Your task to perform on an android device: open app "Nova Launcher" (install if not already installed) and go to login screen Image 0: 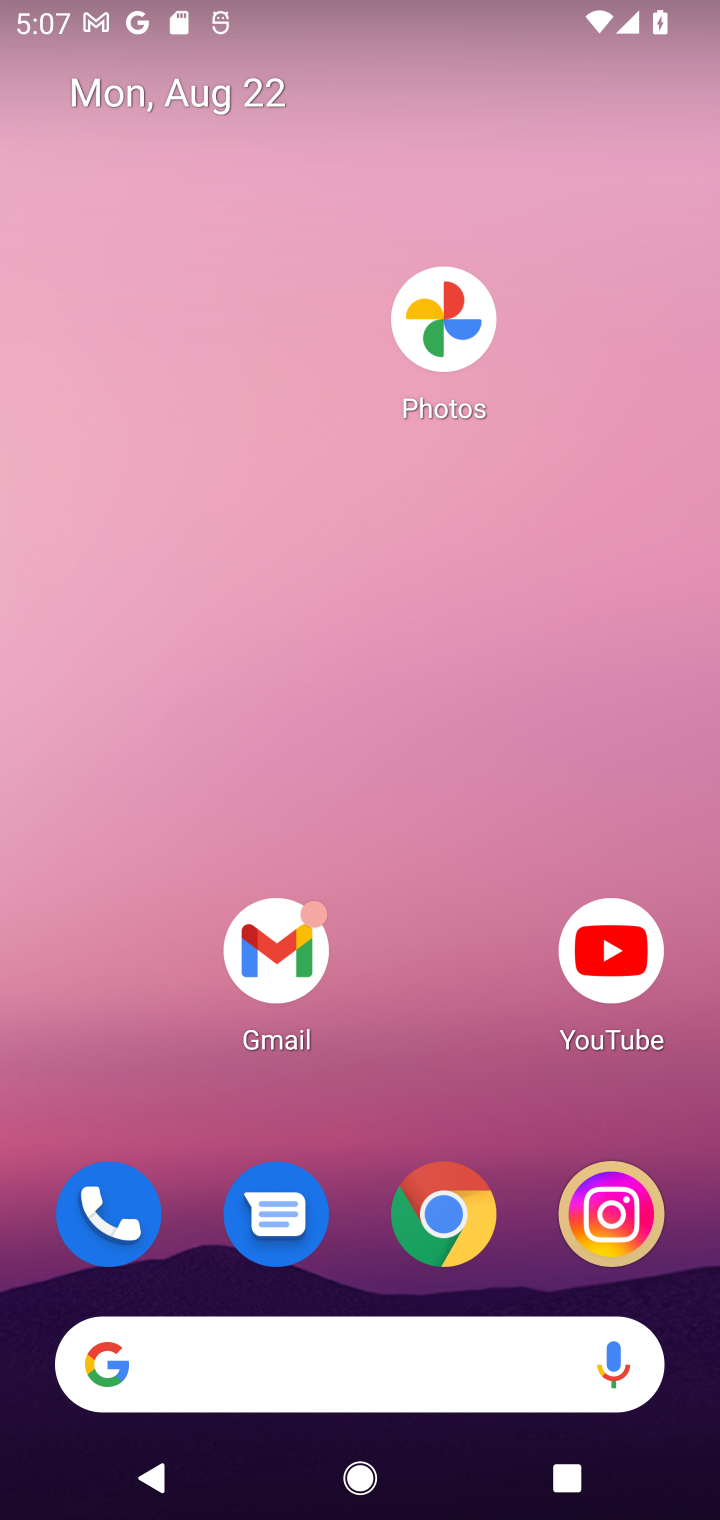
Step 0: drag from (527, 1244) to (515, 85)
Your task to perform on an android device: open app "Nova Launcher" (install if not already installed) and go to login screen Image 1: 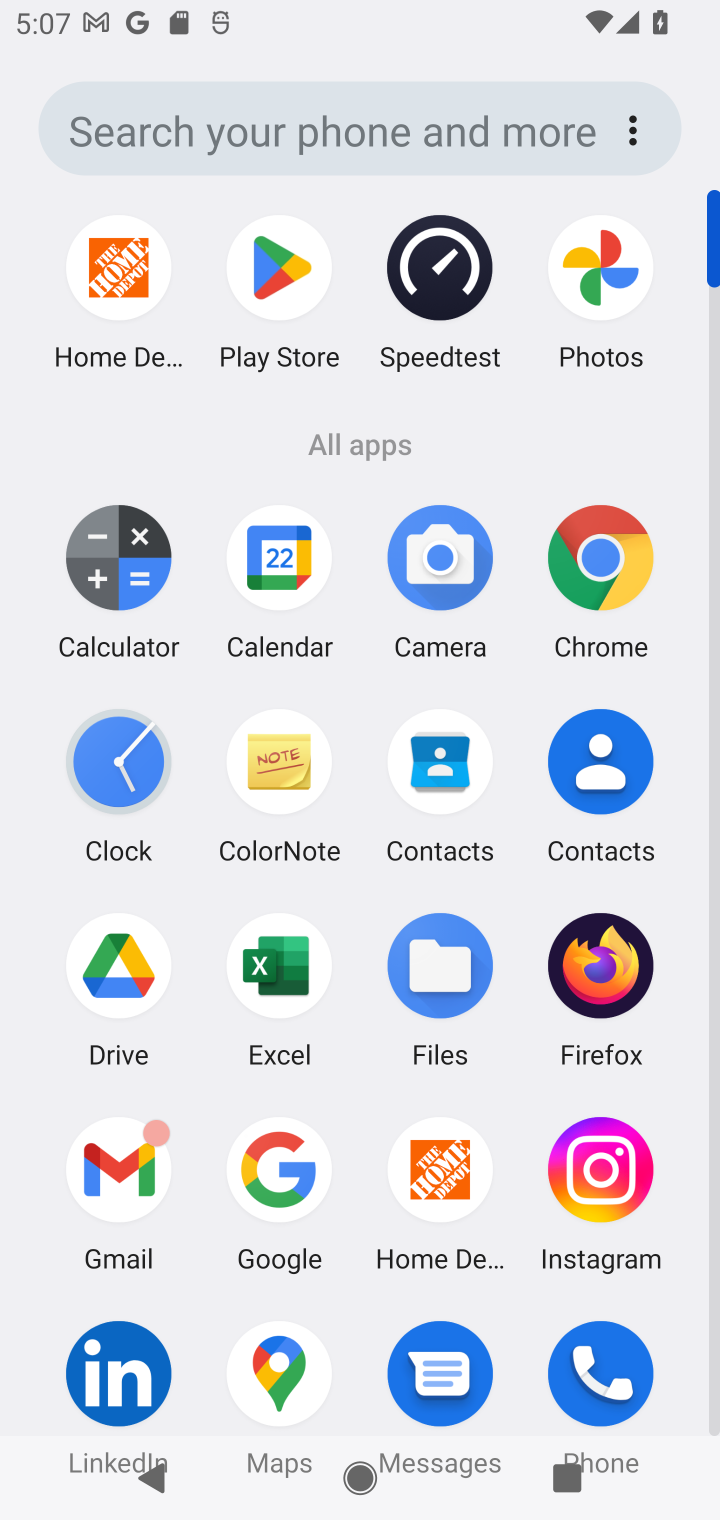
Step 1: drag from (359, 1318) to (340, 456)
Your task to perform on an android device: open app "Nova Launcher" (install if not already installed) and go to login screen Image 2: 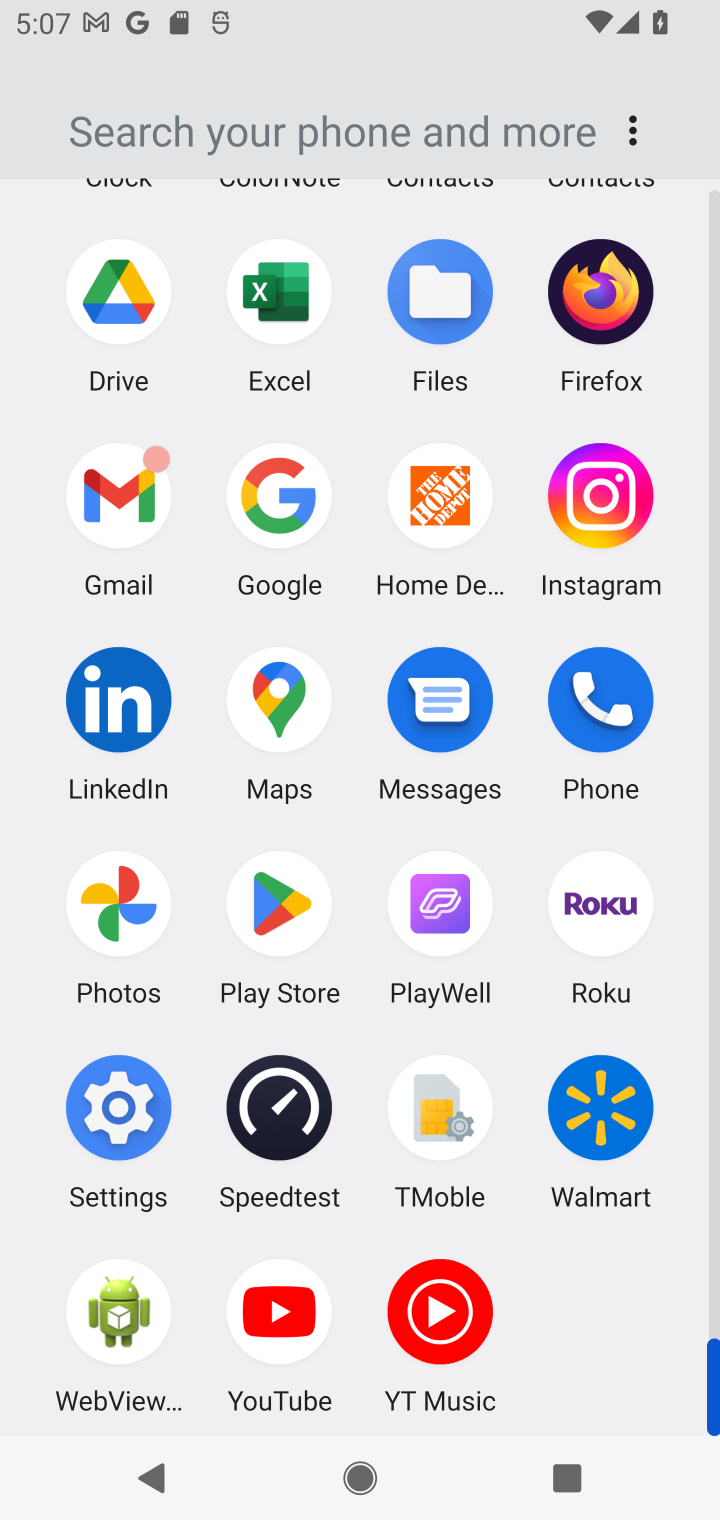
Step 2: click (276, 904)
Your task to perform on an android device: open app "Nova Launcher" (install if not already installed) and go to login screen Image 3: 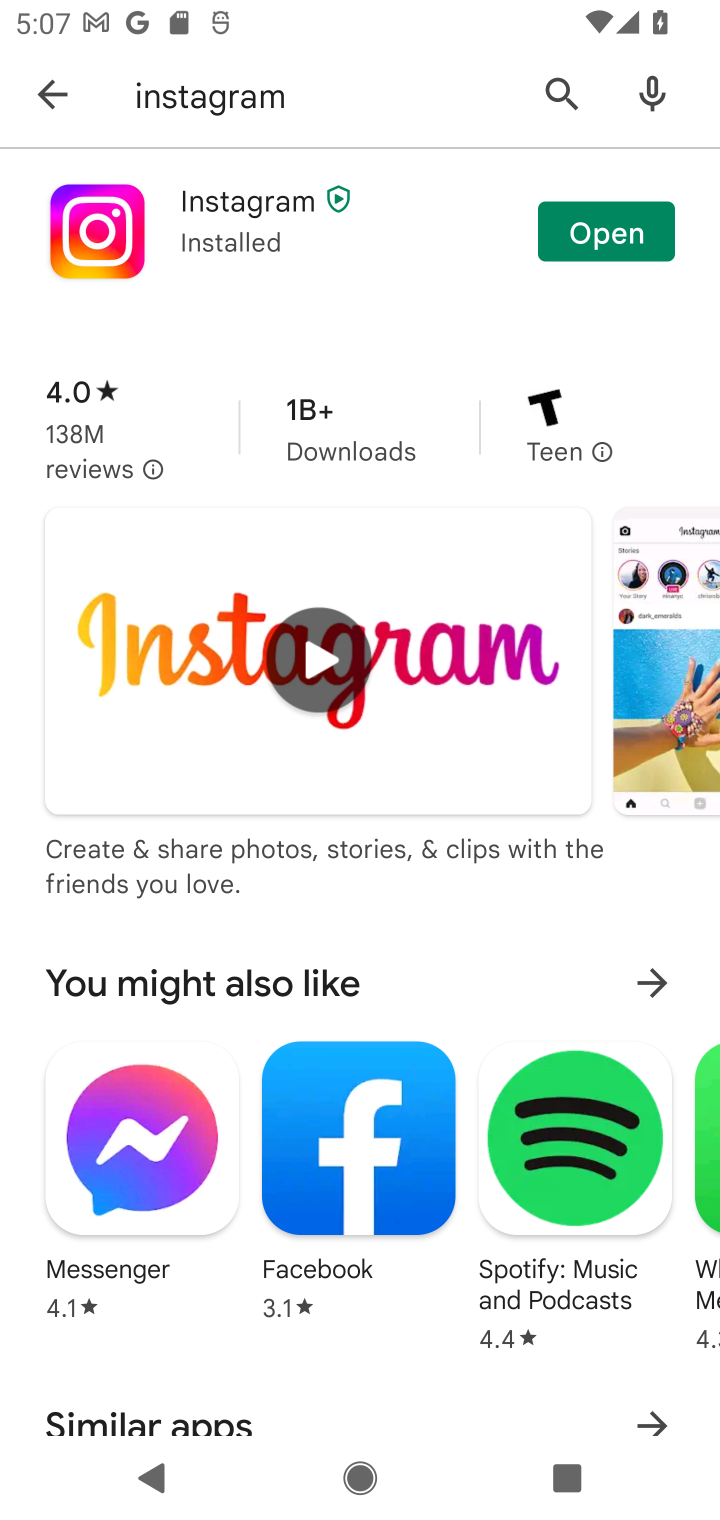
Step 3: click (555, 88)
Your task to perform on an android device: open app "Nova Launcher" (install if not already installed) and go to login screen Image 4: 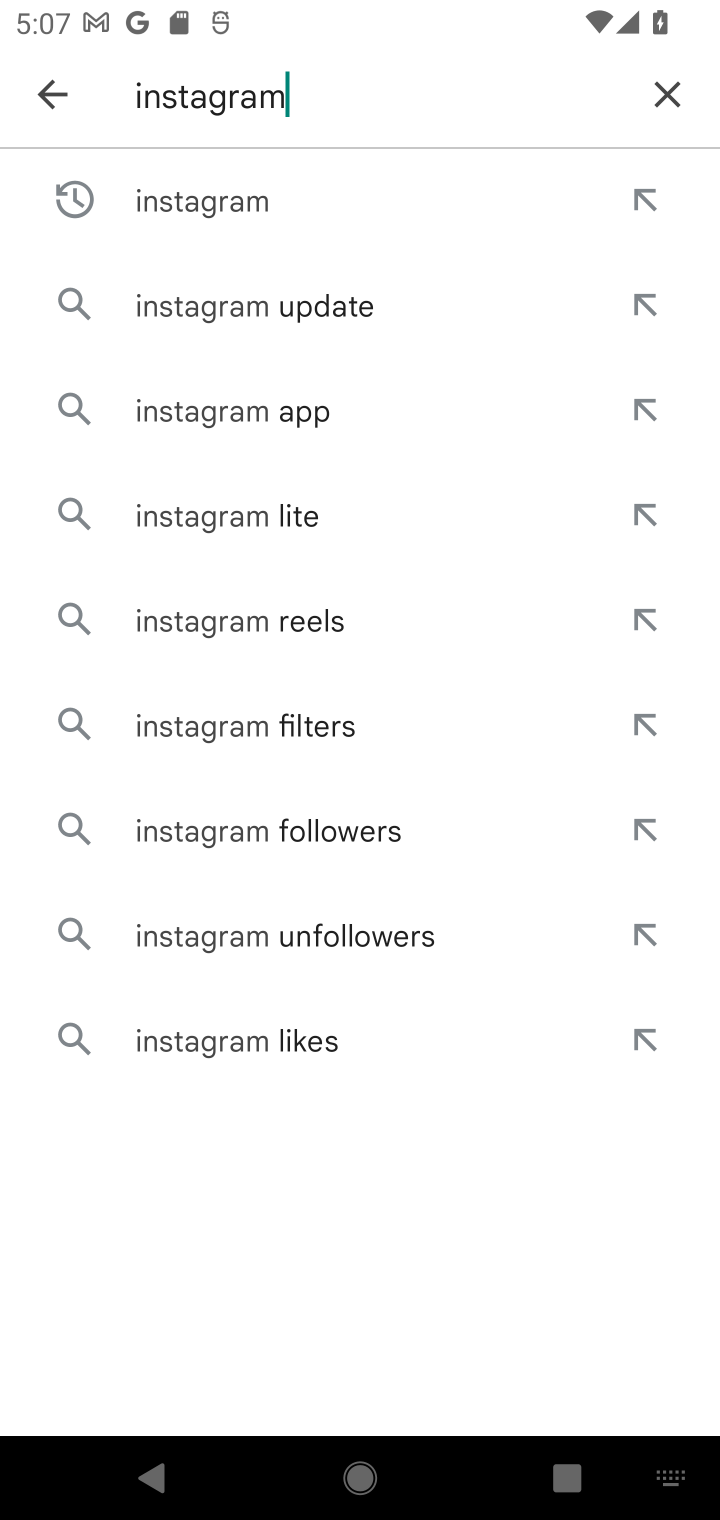
Step 4: click (669, 87)
Your task to perform on an android device: open app "Nova Launcher" (install if not already installed) and go to login screen Image 5: 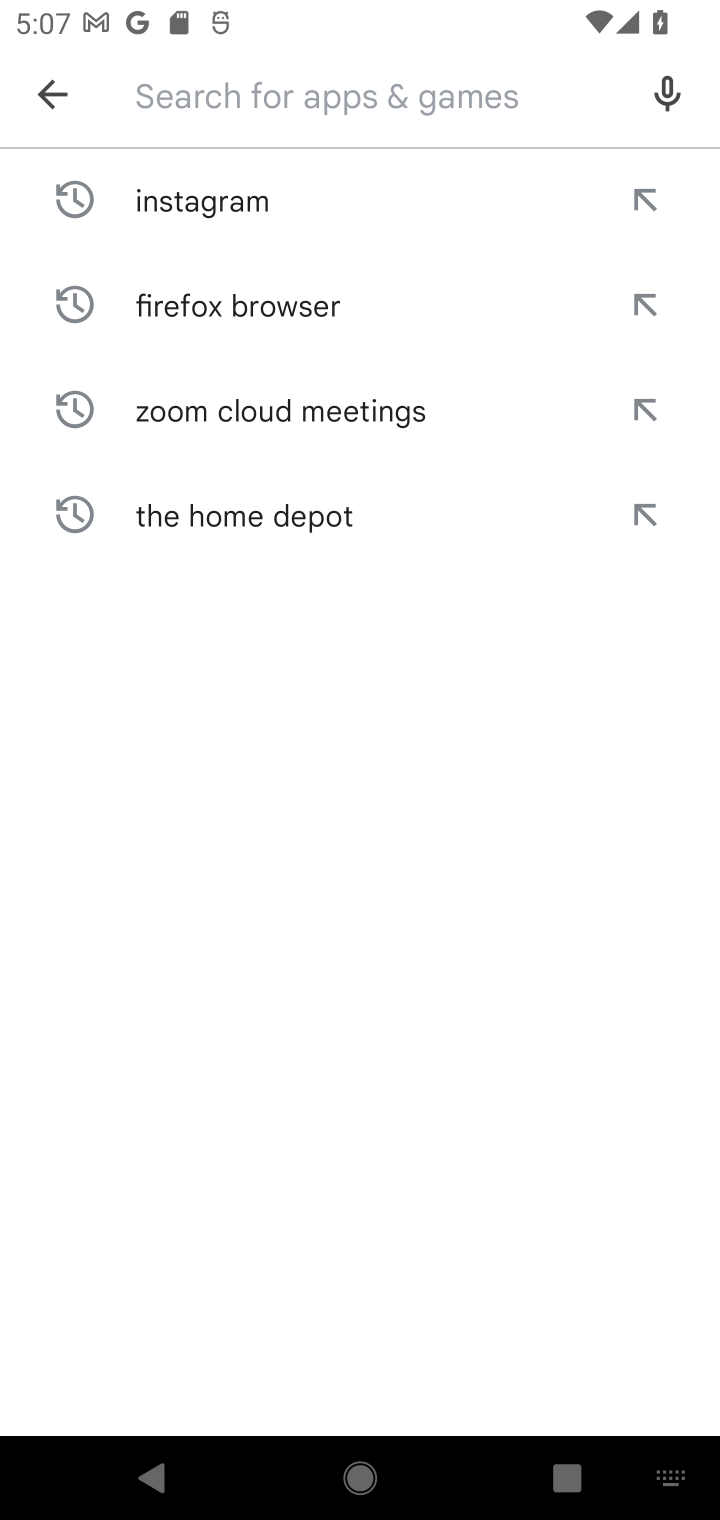
Step 5: type "Nova Launcher"
Your task to perform on an android device: open app "Nova Launcher" (install if not already installed) and go to login screen Image 6: 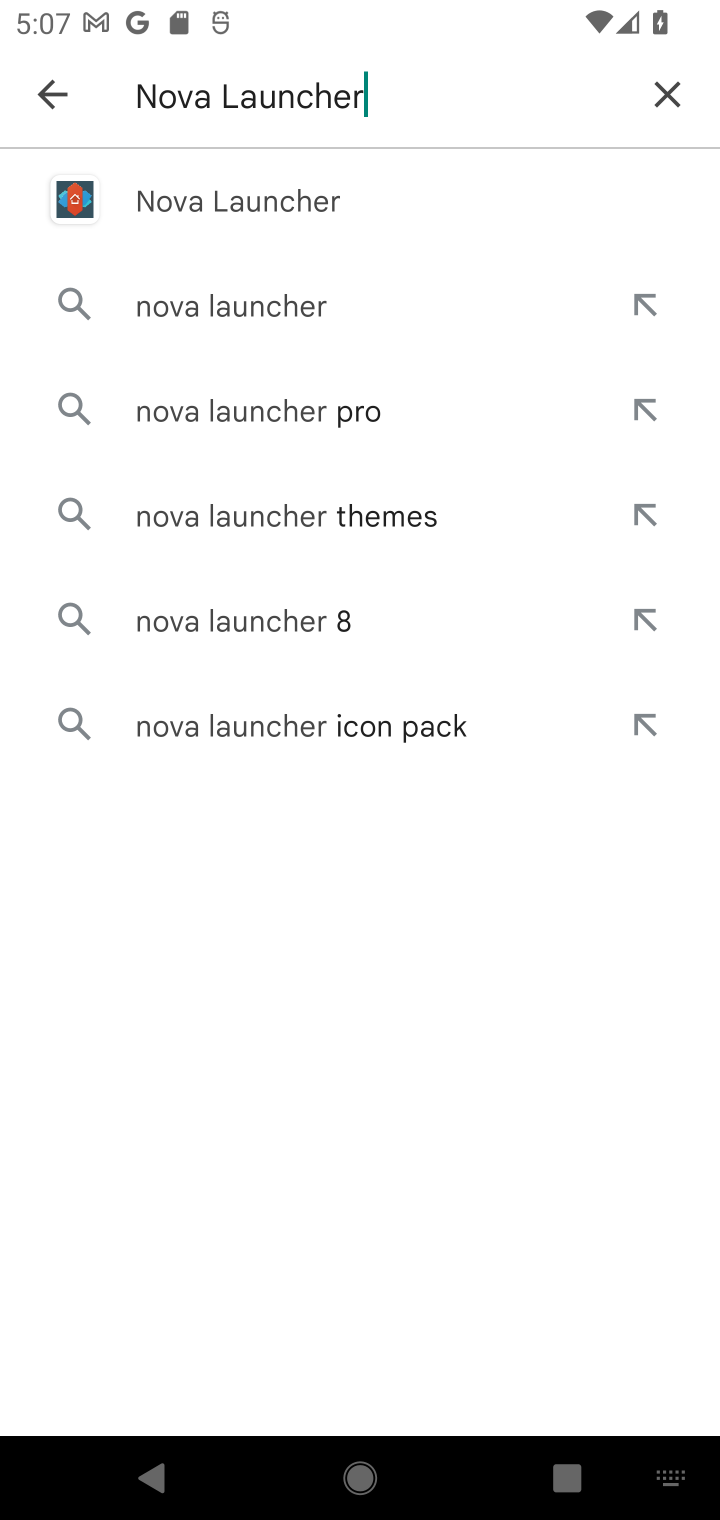
Step 6: click (196, 202)
Your task to perform on an android device: open app "Nova Launcher" (install if not already installed) and go to login screen Image 7: 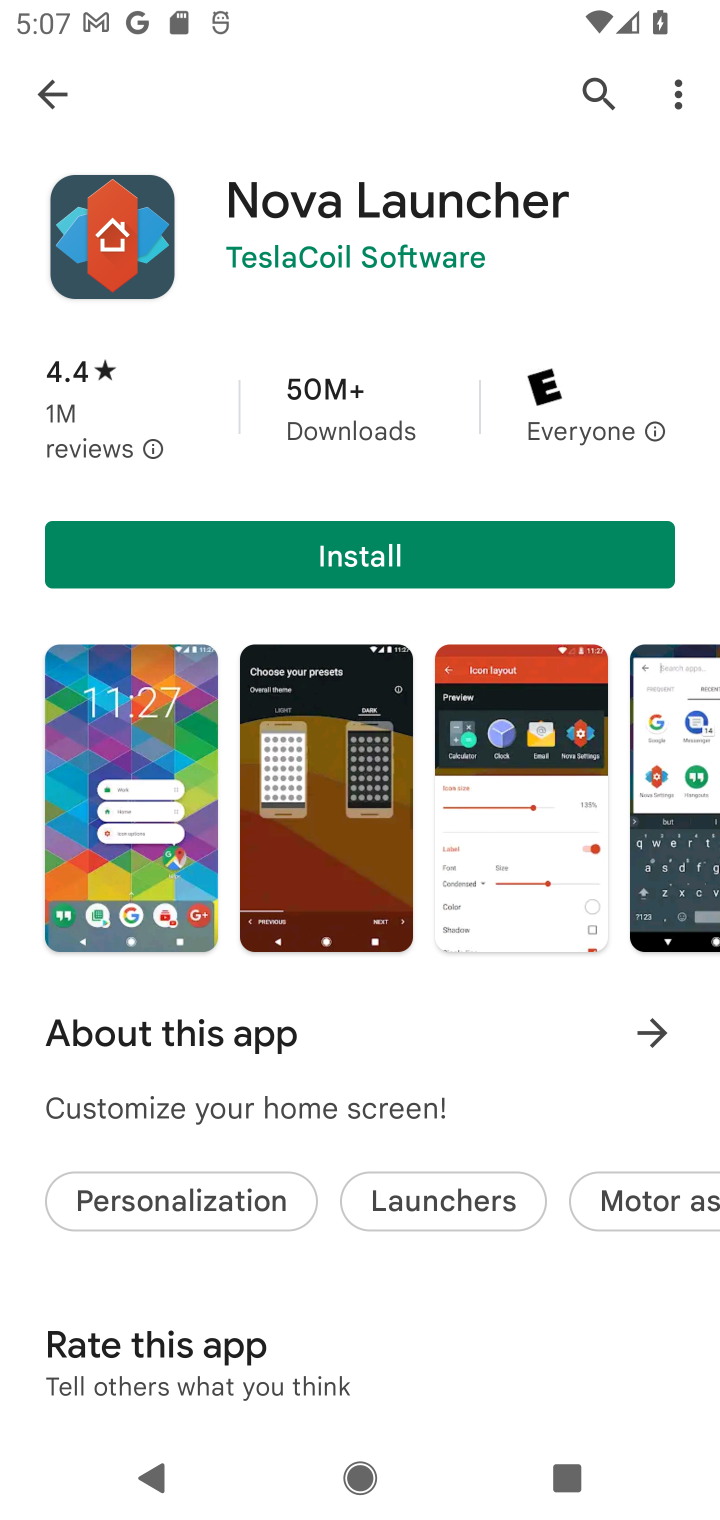
Step 7: click (365, 563)
Your task to perform on an android device: open app "Nova Launcher" (install if not already installed) and go to login screen Image 8: 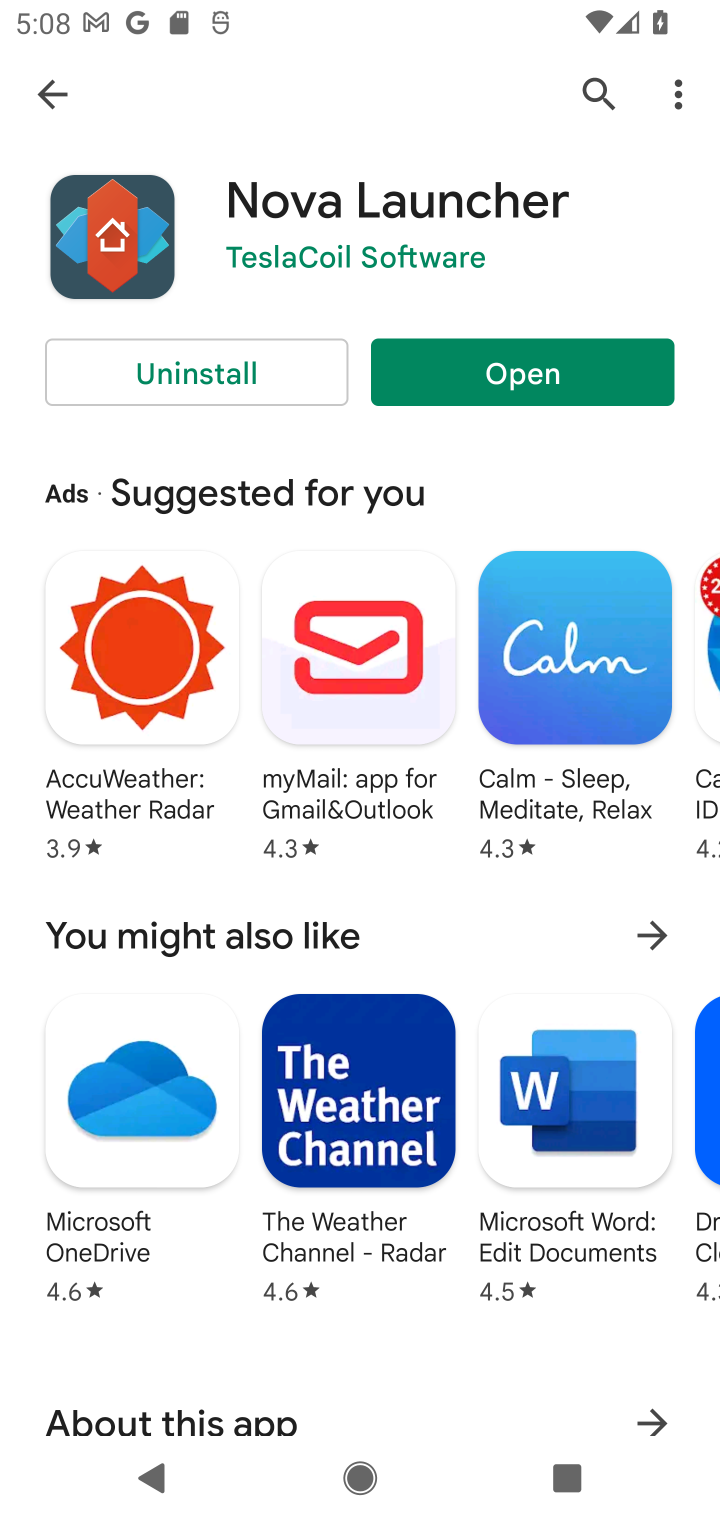
Step 8: click (524, 373)
Your task to perform on an android device: open app "Nova Launcher" (install if not already installed) and go to login screen Image 9: 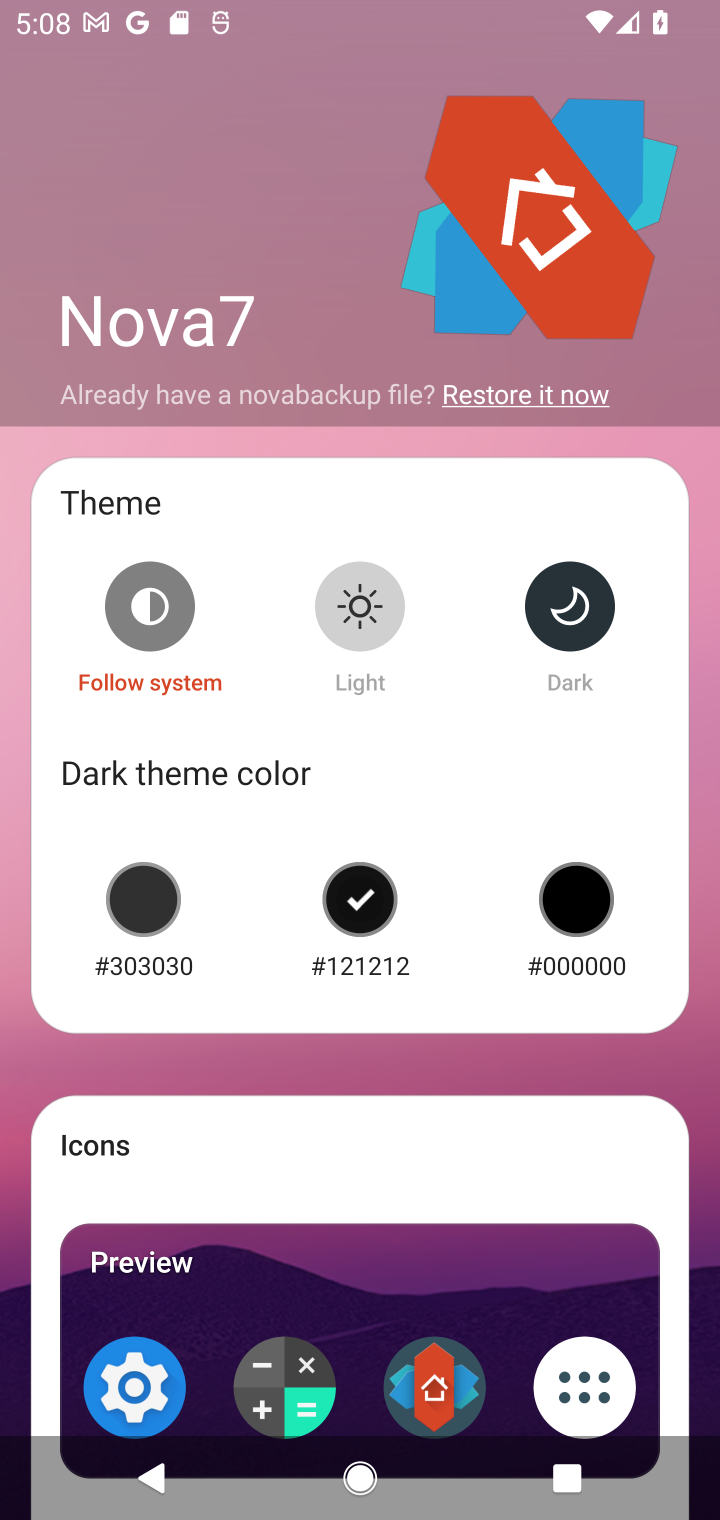
Step 9: task complete